Your task to perform on an android device: change the clock display to show seconds Image 0: 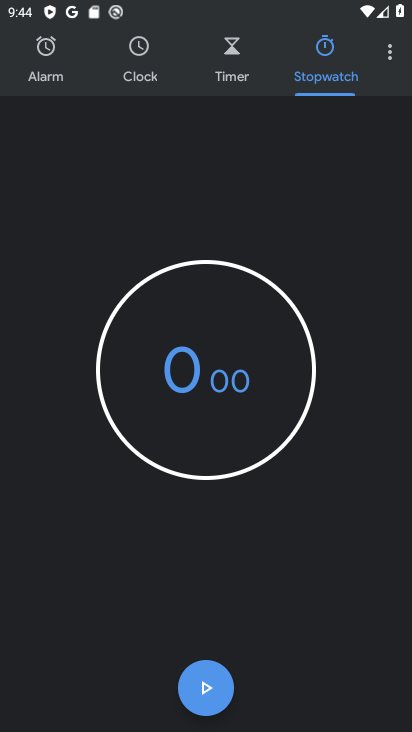
Step 0: press home button
Your task to perform on an android device: change the clock display to show seconds Image 1: 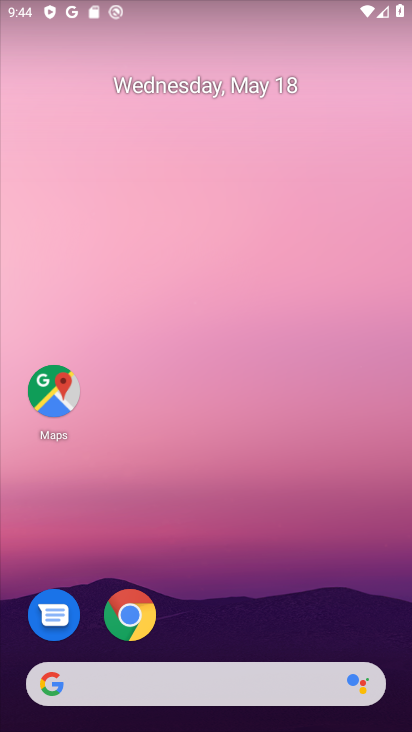
Step 1: drag from (269, 555) to (311, 26)
Your task to perform on an android device: change the clock display to show seconds Image 2: 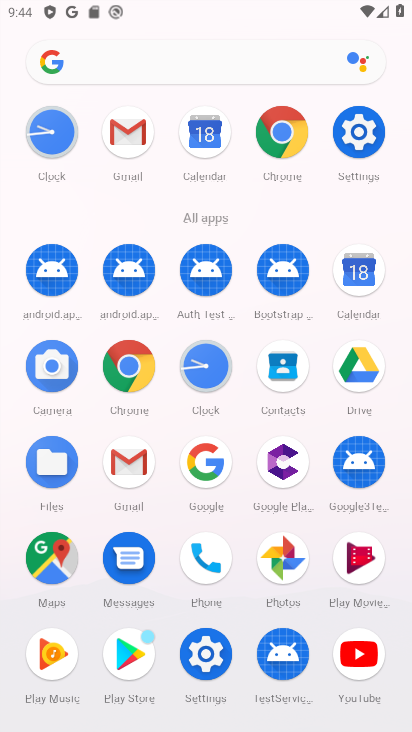
Step 2: click (210, 385)
Your task to perform on an android device: change the clock display to show seconds Image 3: 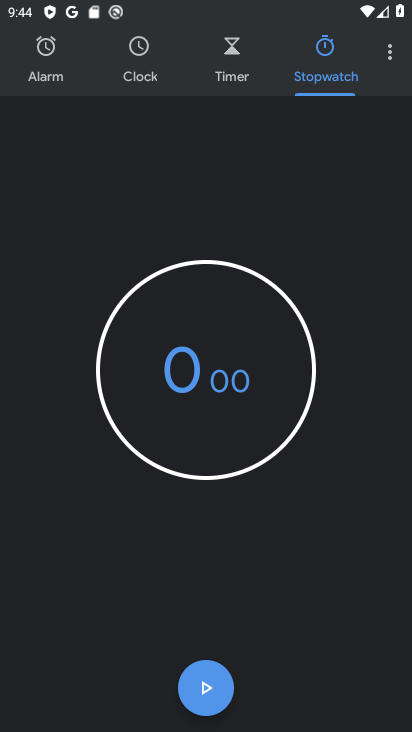
Step 3: click (394, 62)
Your task to perform on an android device: change the clock display to show seconds Image 4: 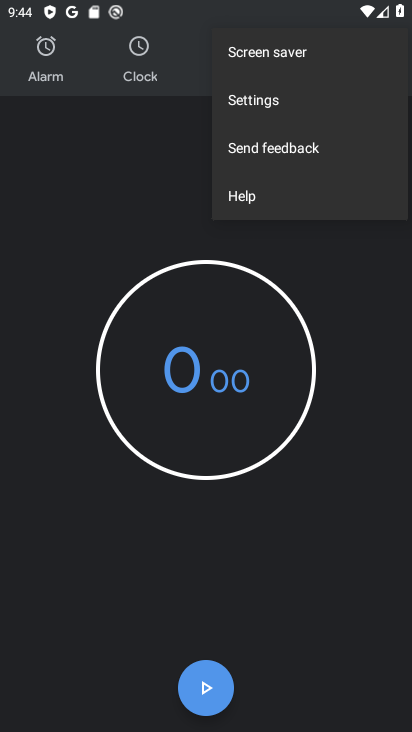
Step 4: click (285, 107)
Your task to perform on an android device: change the clock display to show seconds Image 5: 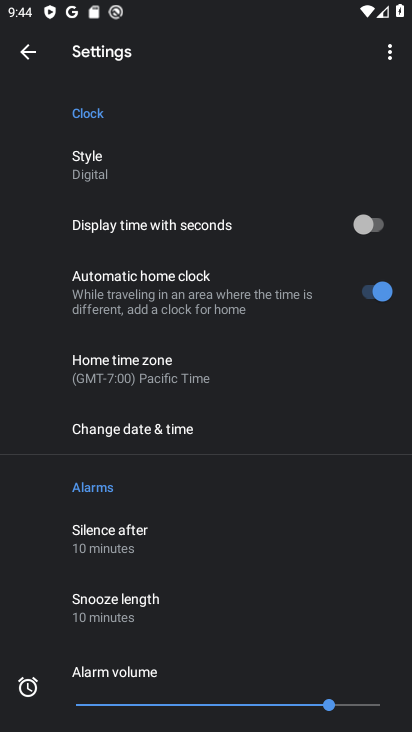
Step 5: click (350, 218)
Your task to perform on an android device: change the clock display to show seconds Image 6: 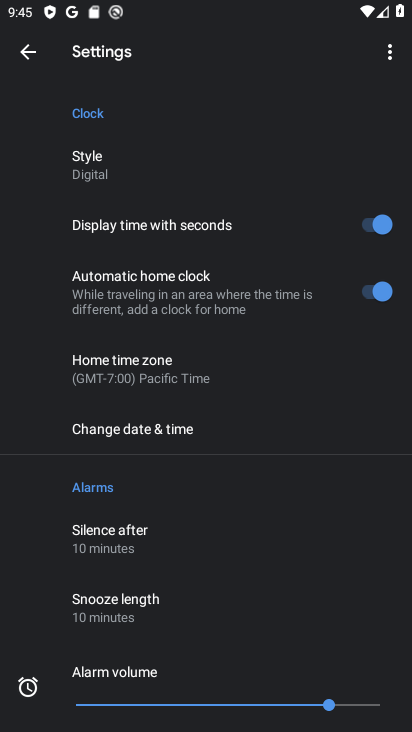
Step 6: task complete